Your task to perform on an android device: Open the map Image 0: 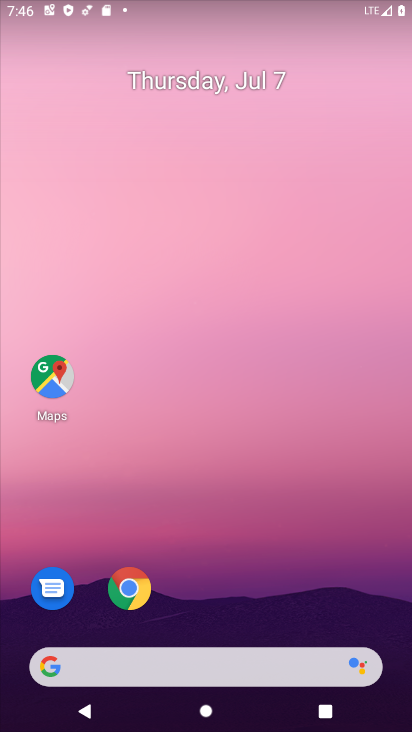
Step 0: drag from (258, 577) to (257, 254)
Your task to perform on an android device: Open the map Image 1: 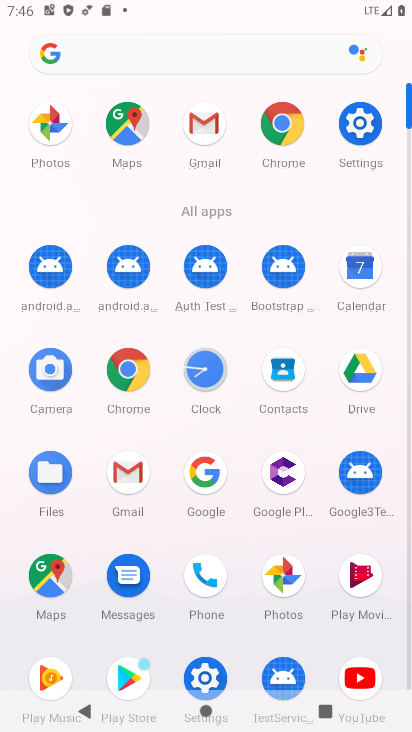
Step 1: click (56, 565)
Your task to perform on an android device: Open the map Image 2: 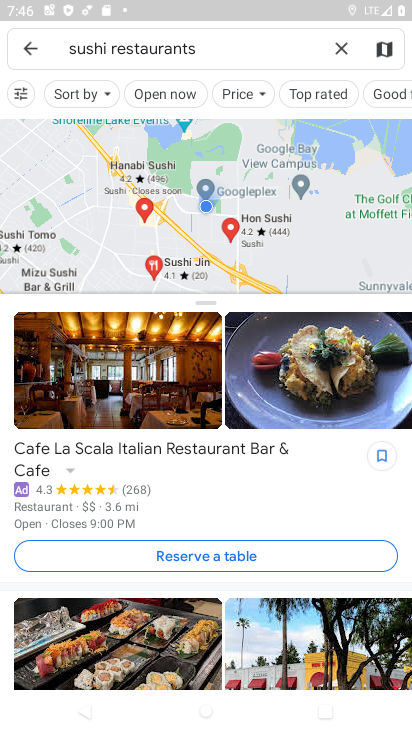
Step 2: click (336, 59)
Your task to perform on an android device: Open the map Image 3: 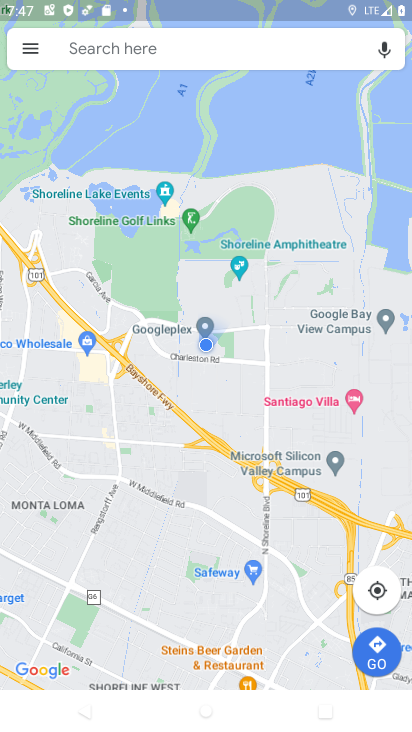
Step 3: task complete